Your task to perform on an android device: remove spam from my inbox in the gmail app Image 0: 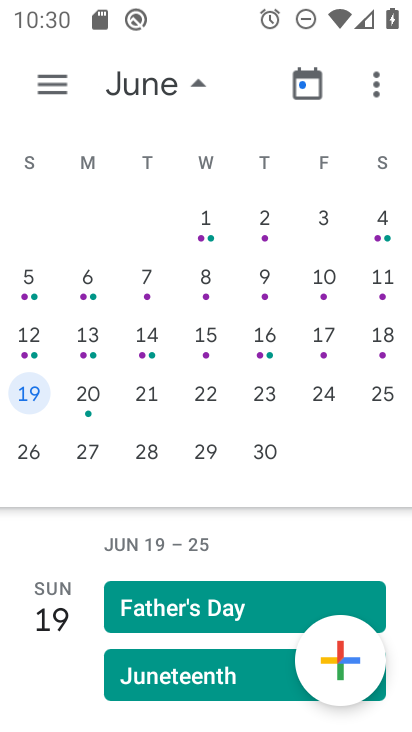
Step 0: press home button
Your task to perform on an android device: remove spam from my inbox in the gmail app Image 1: 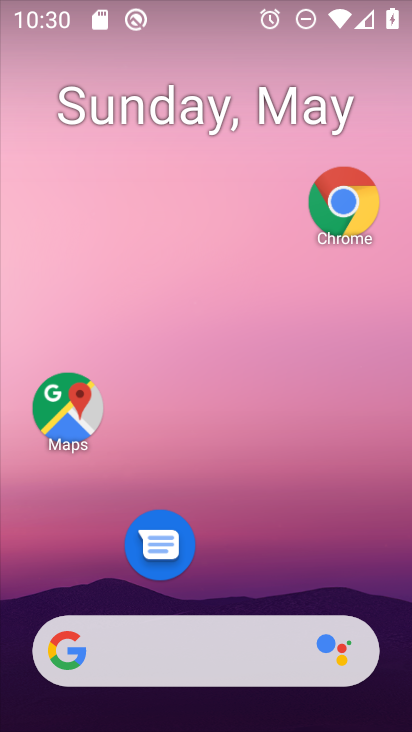
Step 1: drag from (273, 582) to (309, 43)
Your task to perform on an android device: remove spam from my inbox in the gmail app Image 2: 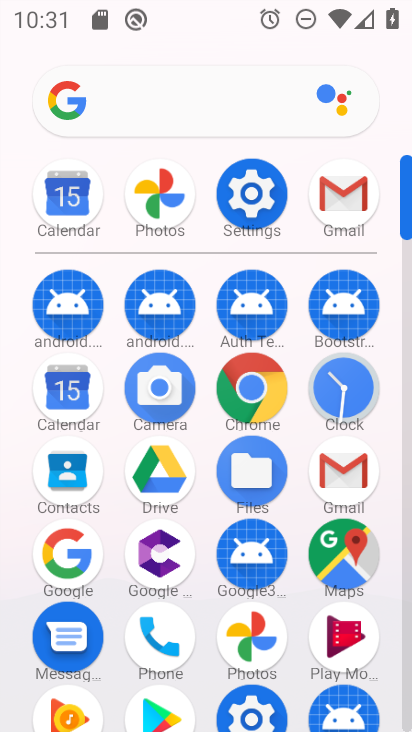
Step 2: click (341, 468)
Your task to perform on an android device: remove spam from my inbox in the gmail app Image 3: 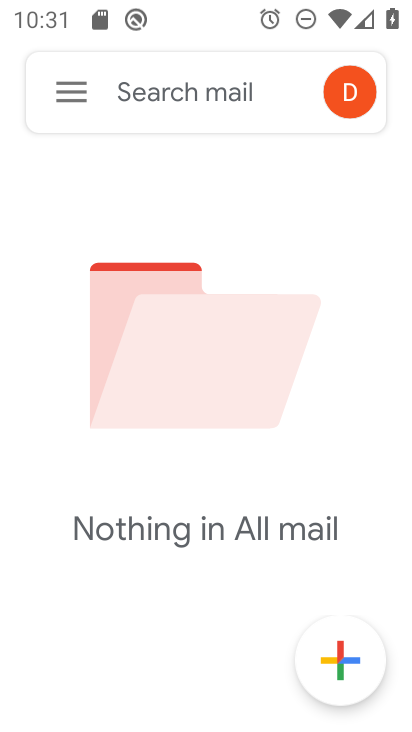
Step 3: click (77, 92)
Your task to perform on an android device: remove spam from my inbox in the gmail app Image 4: 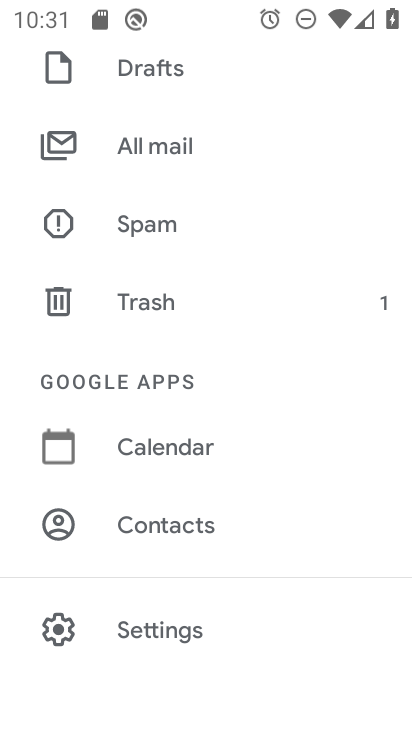
Step 4: click (239, 226)
Your task to perform on an android device: remove spam from my inbox in the gmail app Image 5: 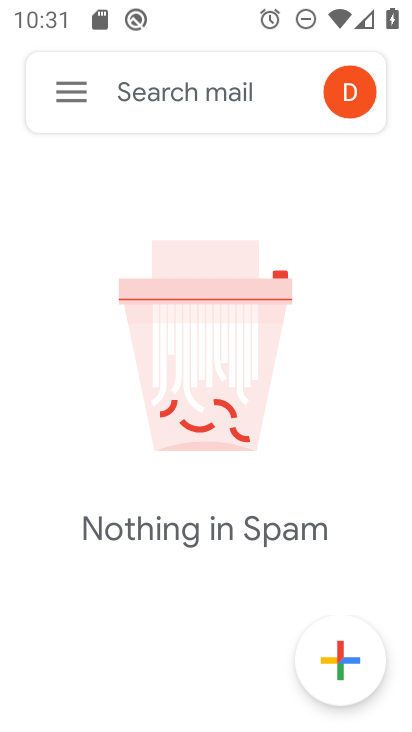
Step 5: task complete